Your task to perform on an android device: Show me recent news Image 0: 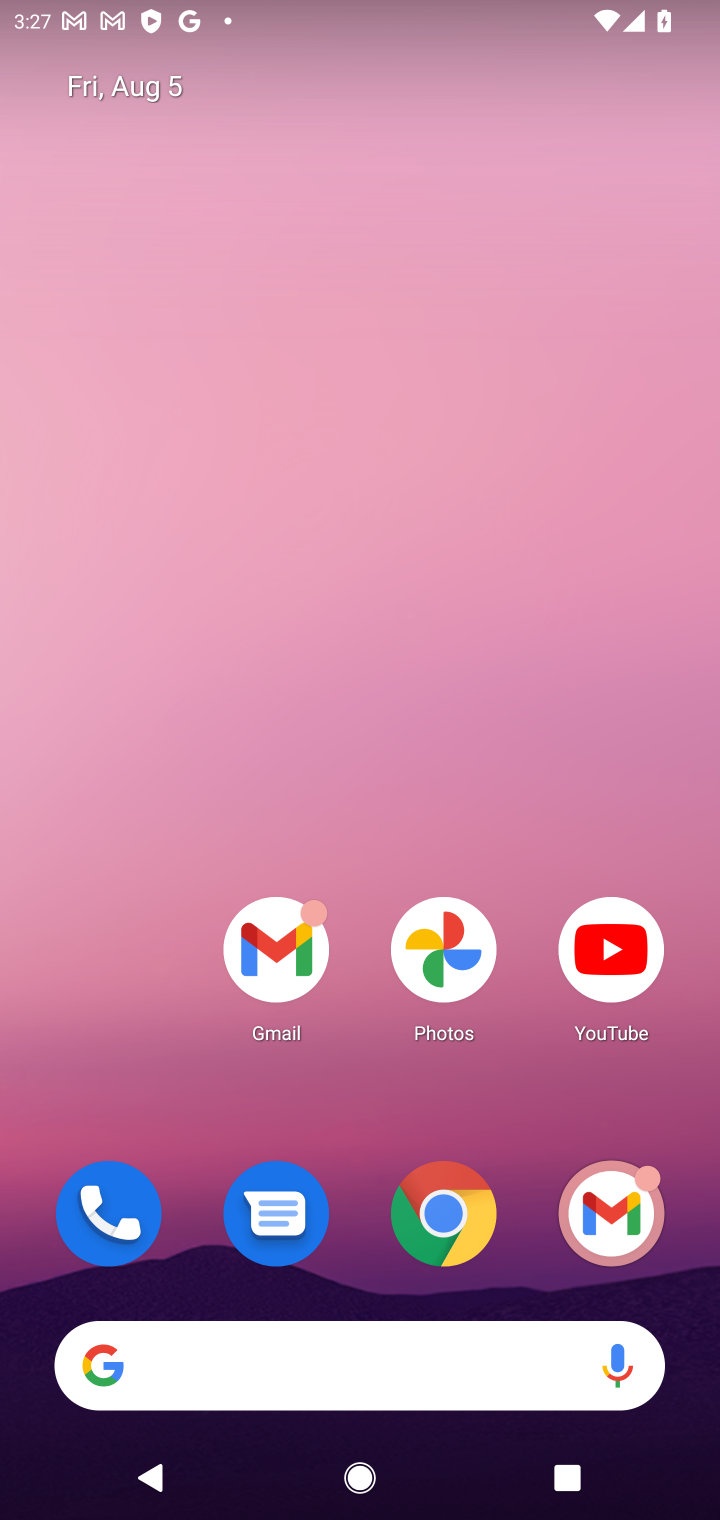
Step 0: click (416, 1353)
Your task to perform on an android device: Show me recent news Image 1: 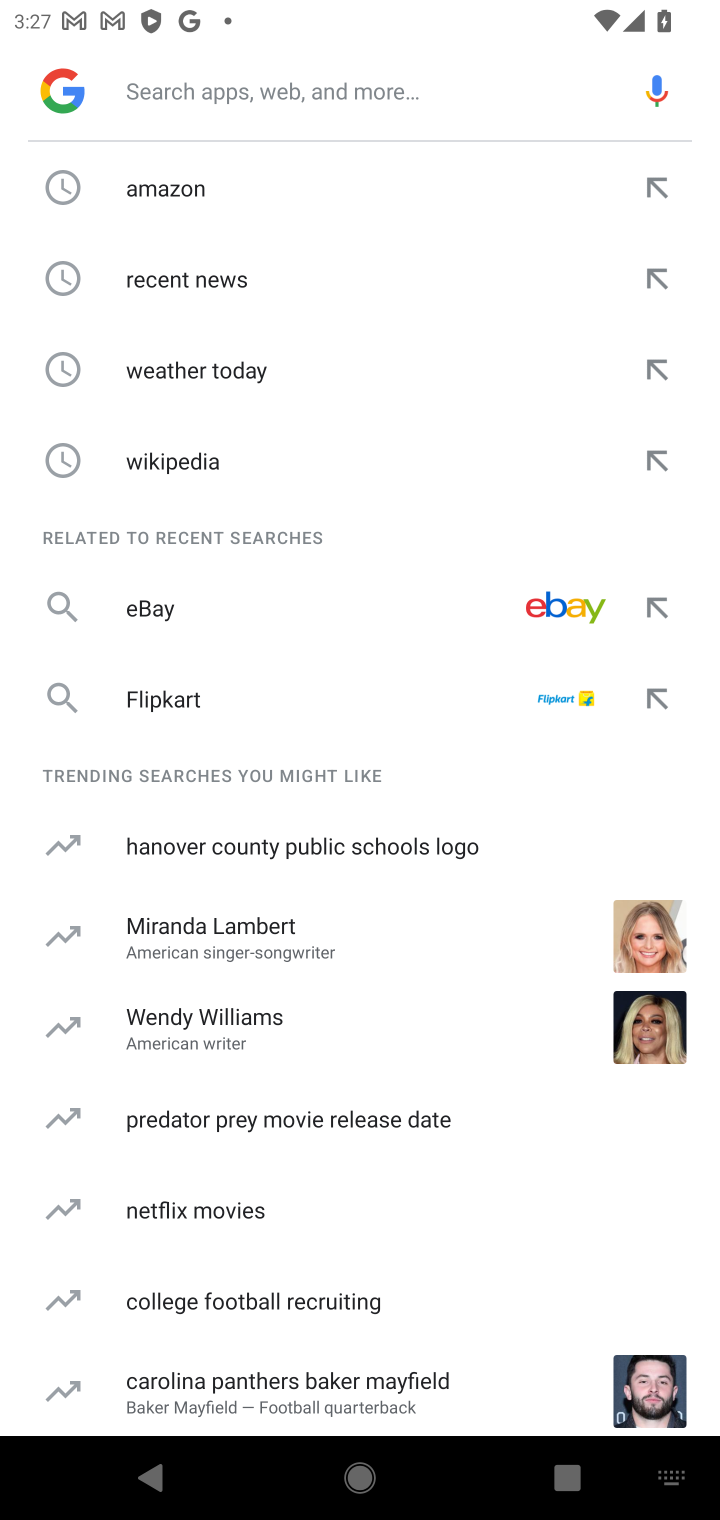
Step 1: click (181, 295)
Your task to perform on an android device: Show me recent news Image 2: 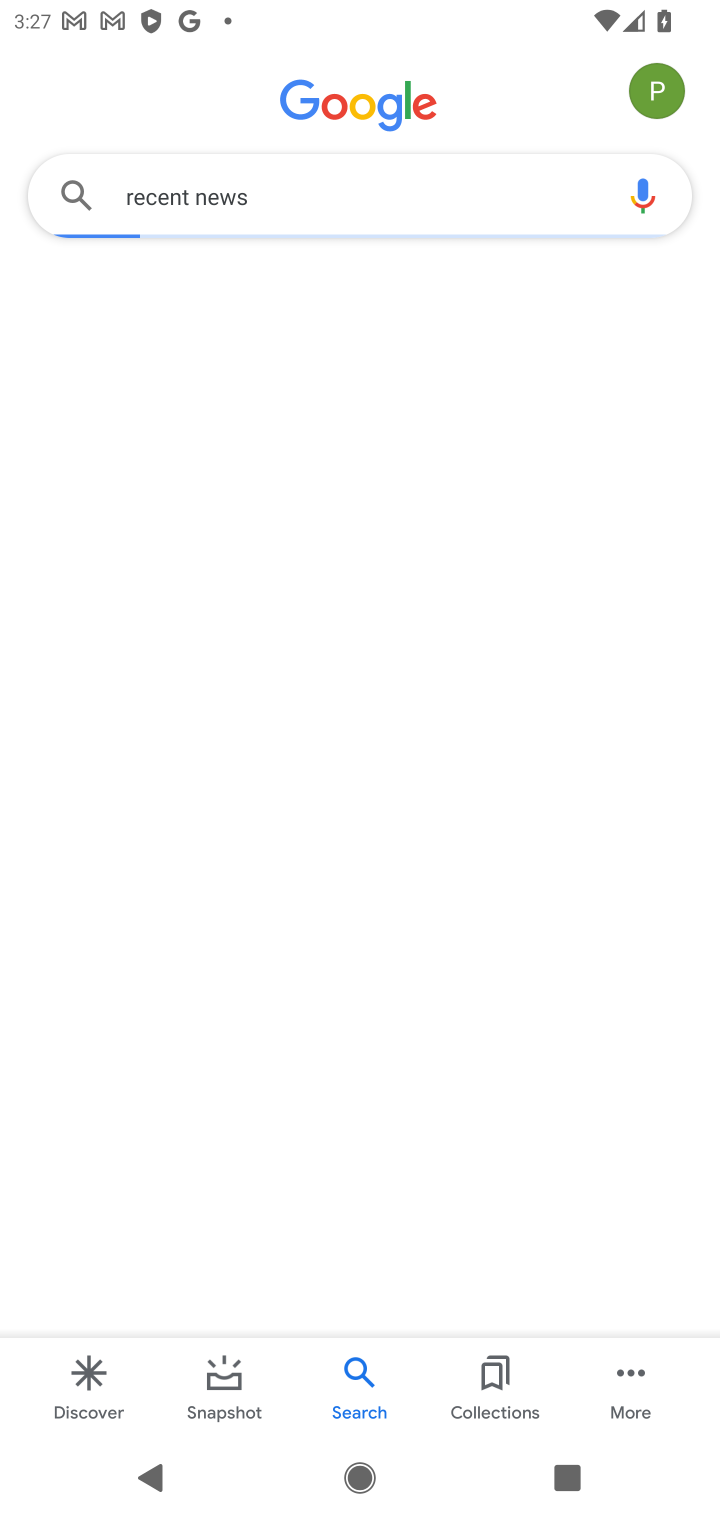
Step 2: task complete